Your task to perform on an android device: Go to Wikipedia Image 0: 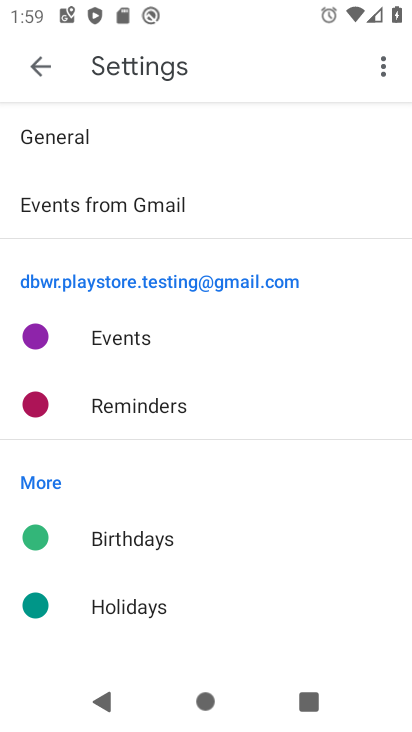
Step 0: press home button
Your task to perform on an android device: Go to Wikipedia Image 1: 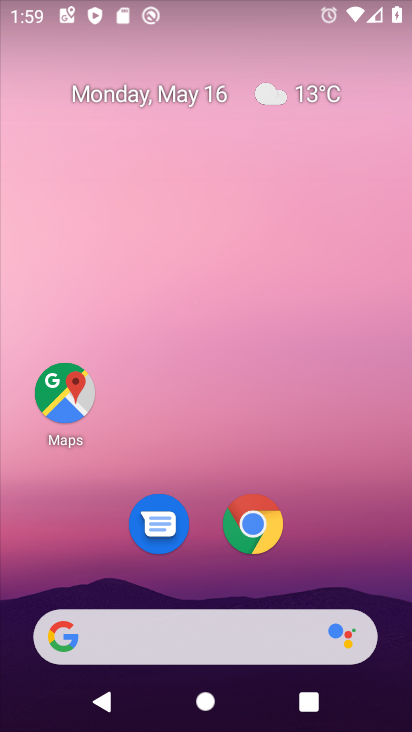
Step 1: click (264, 514)
Your task to perform on an android device: Go to Wikipedia Image 2: 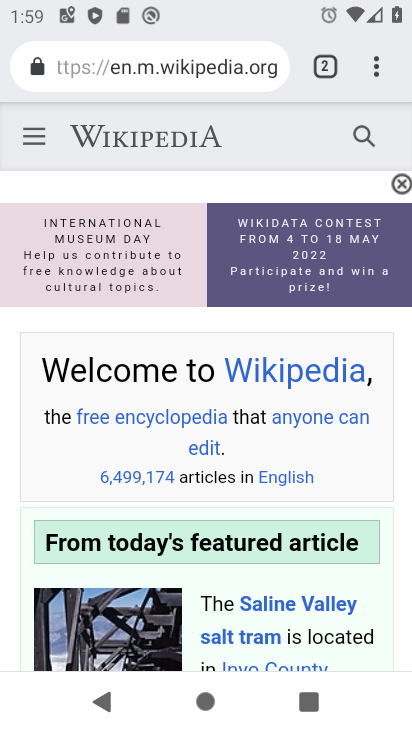
Step 2: task complete